Your task to perform on an android device: open chrome privacy settings Image 0: 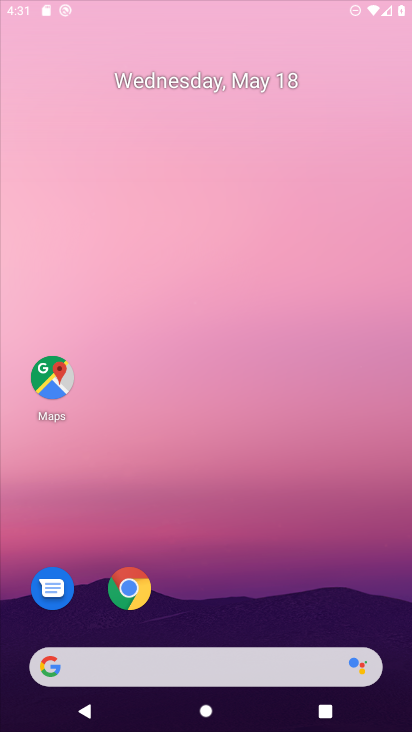
Step 0: drag from (238, 582) to (237, 275)
Your task to perform on an android device: open chrome privacy settings Image 1: 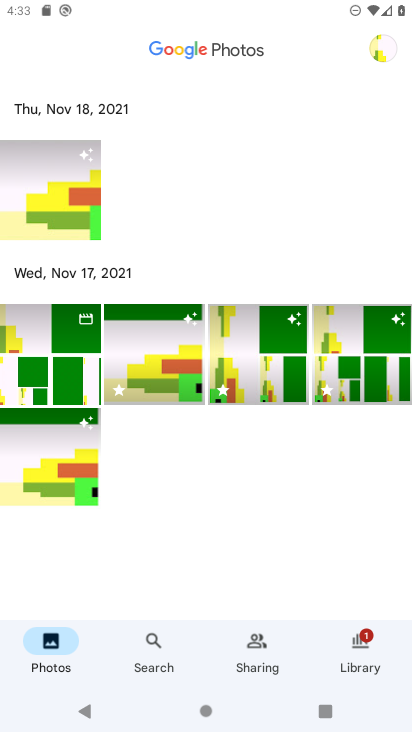
Step 1: press home button
Your task to perform on an android device: open chrome privacy settings Image 2: 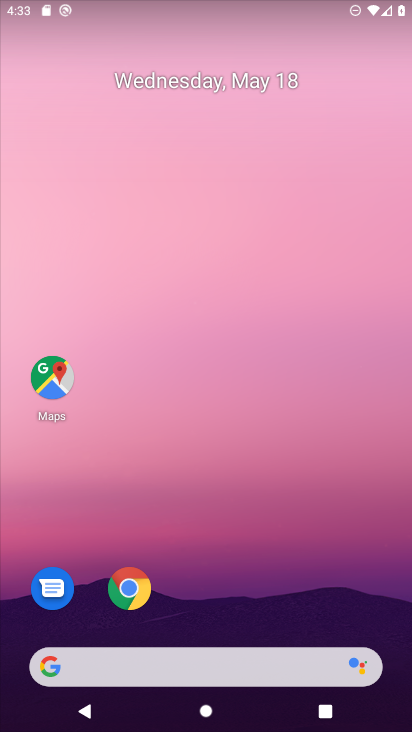
Step 2: drag from (262, 607) to (324, 264)
Your task to perform on an android device: open chrome privacy settings Image 3: 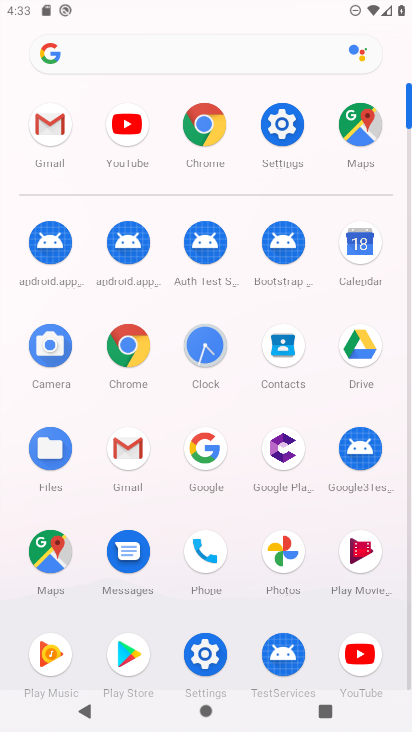
Step 3: click (210, 151)
Your task to perform on an android device: open chrome privacy settings Image 4: 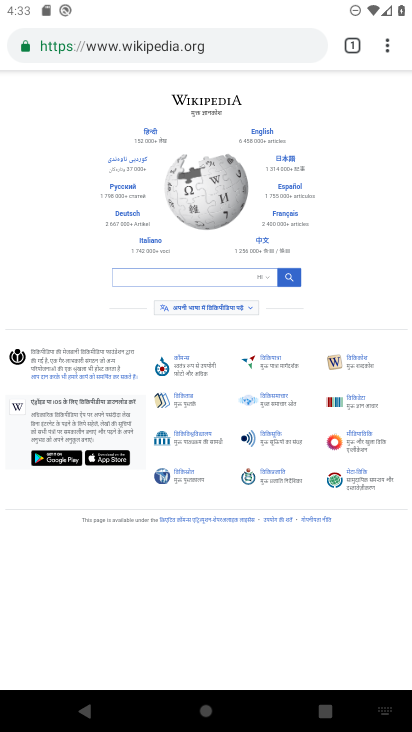
Step 4: click (250, 50)
Your task to perform on an android device: open chrome privacy settings Image 5: 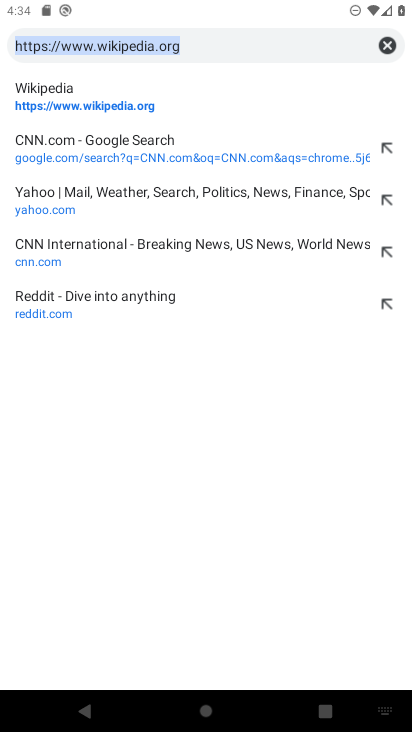
Step 5: click (383, 40)
Your task to perform on an android device: open chrome privacy settings Image 6: 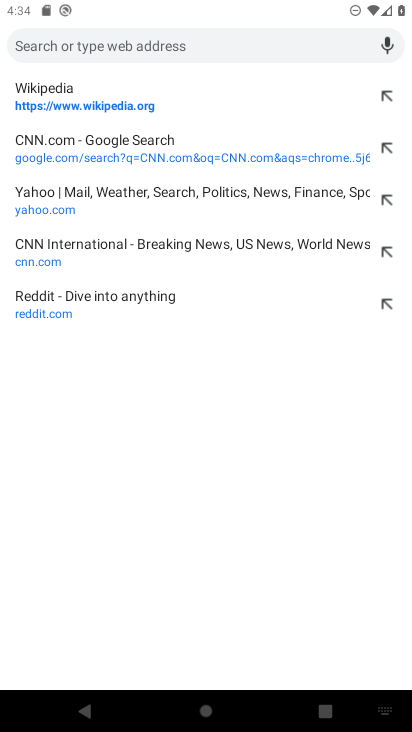
Step 6: click (253, 535)
Your task to perform on an android device: open chrome privacy settings Image 7: 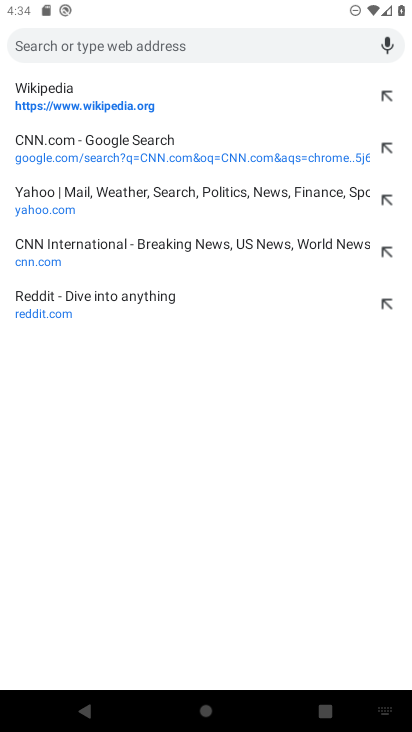
Step 7: click (95, 696)
Your task to perform on an android device: open chrome privacy settings Image 8: 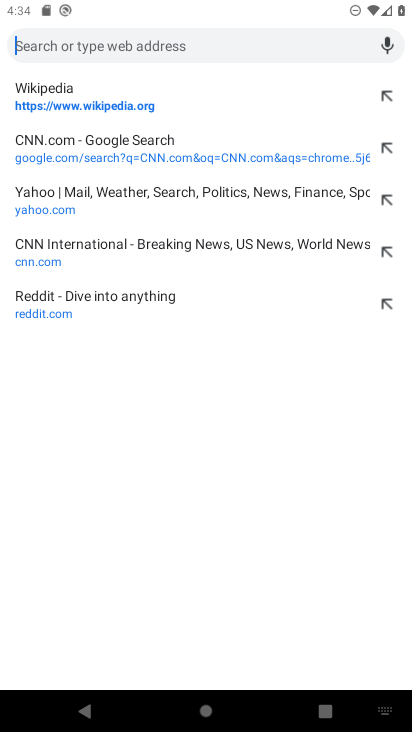
Step 8: click (82, 724)
Your task to perform on an android device: open chrome privacy settings Image 9: 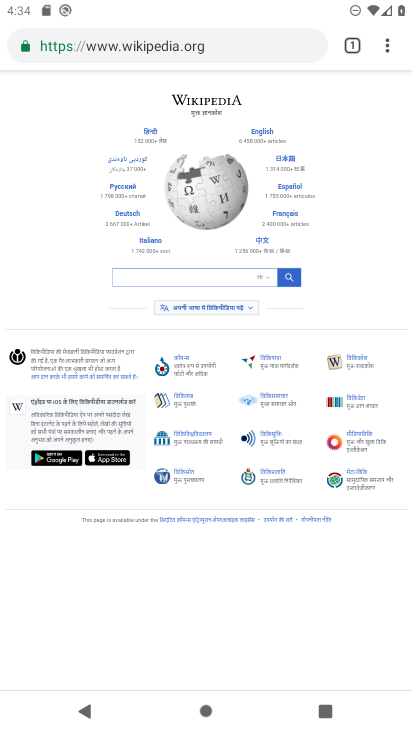
Step 9: click (387, 49)
Your task to perform on an android device: open chrome privacy settings Image 10: 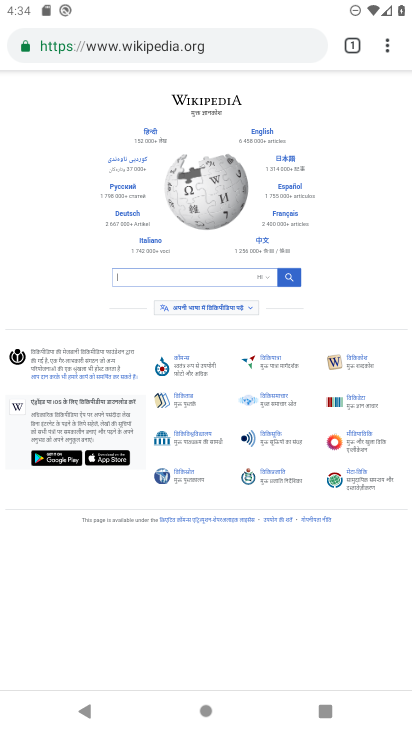
Step 10: click (388, 55)
Your task to perform on an android device: open chrome privacy settings Image 11: 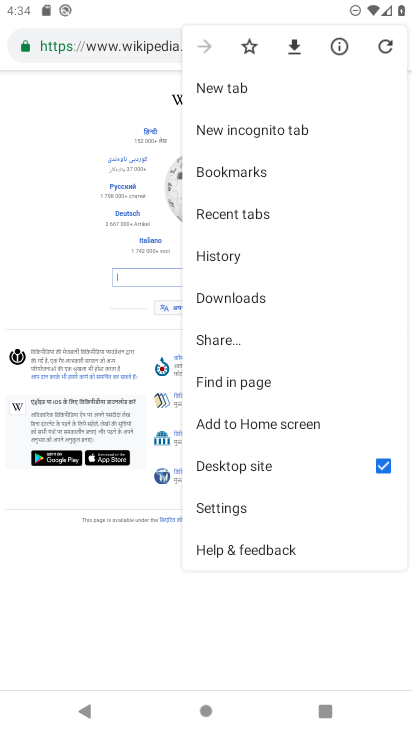
Step 11: click (266, 514)
Your task to perform on an android device: open chrome privacy settings Image 12: 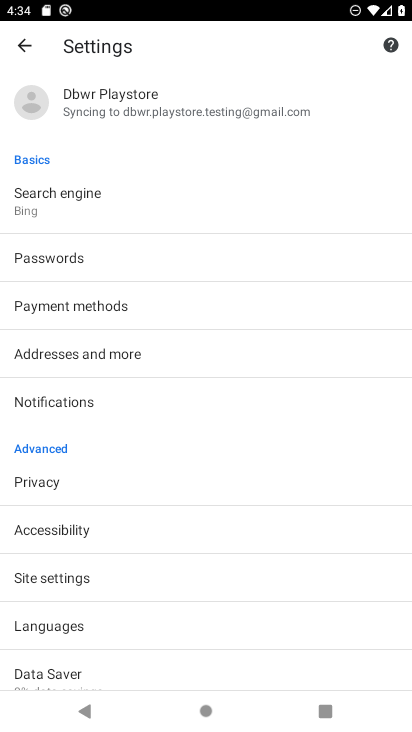
Step 12: click (114, 483)
Your task to perform on an android device: open chrome privacy settings Image 13: 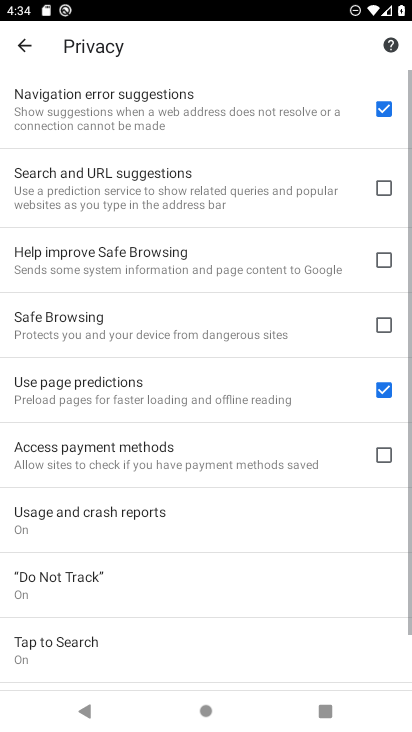
Step 13: task complete